Your task to perform on an android device: turn off translation in the chrome app Image 0: 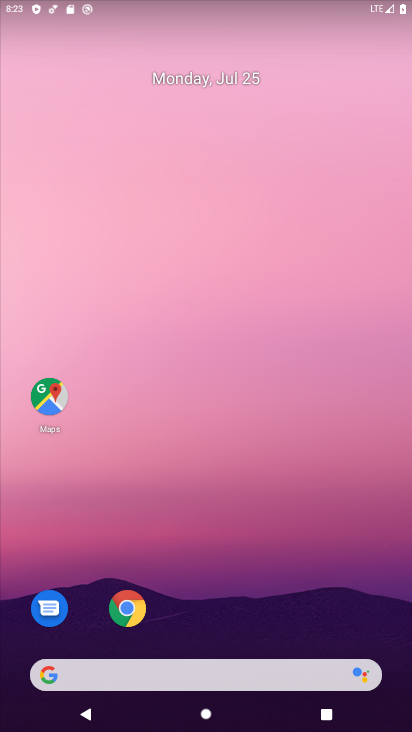
Step 0: drag from (226, 715) to (229, 247)
Your task to perform on an android device: turn off translation in the chrome app Image 1: 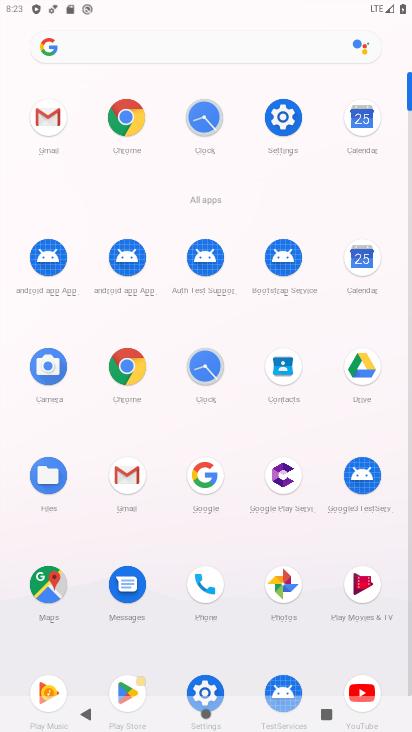
Step 1: click (125, 372)
Your task to perform on an android device: turn off translation in the chrome app Image 2: 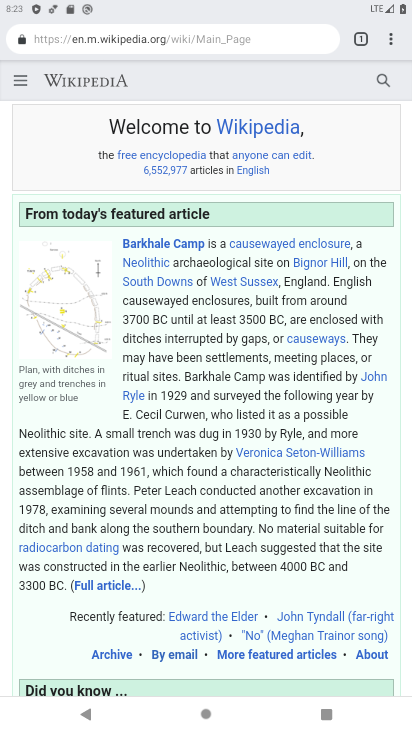
Step 2: click (392, 41)
Your task to perform on an android device: turn off translation in the chrome app Image 3: 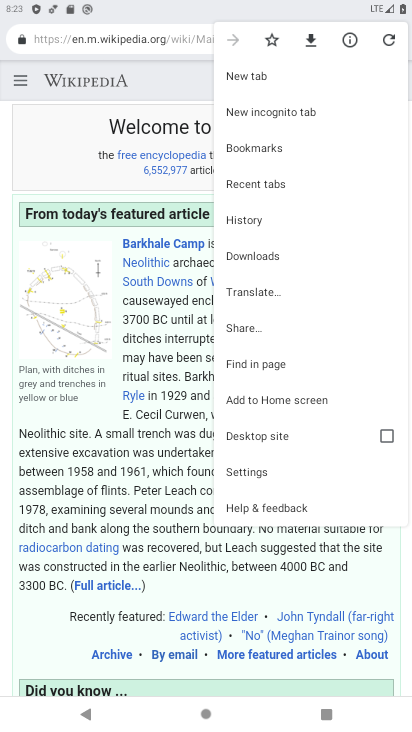
Step 3: click (247, 471)
Your task to perform on an android device: turn off translation in the chrome app Image 4: 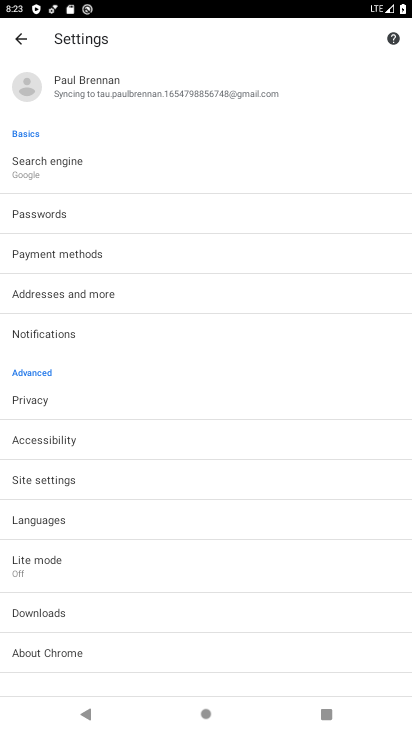
Step 4: click (33, 518)
Your task to perform on an android device: turn off translation in the chrome app Image 5: 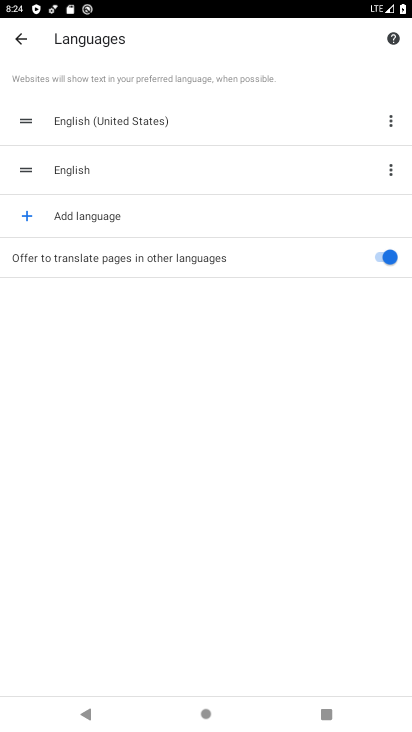
Step 5: click (381, 256)
Your task to perform on an android device: turn off translation in the chrome app Image 6: 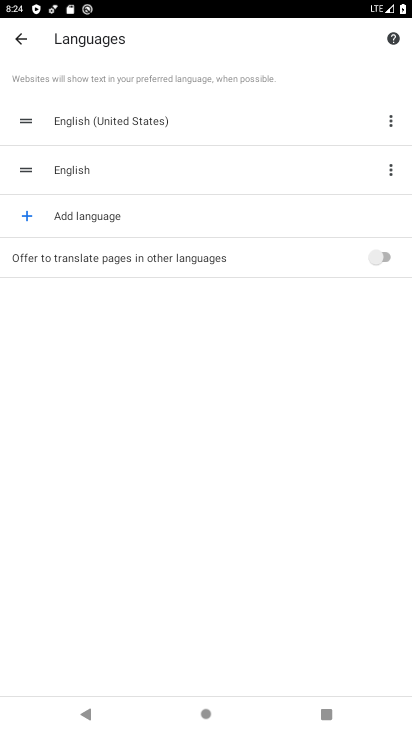
Step 6: task complete